Your task to perform on an android device: Open notification settings Image 0: 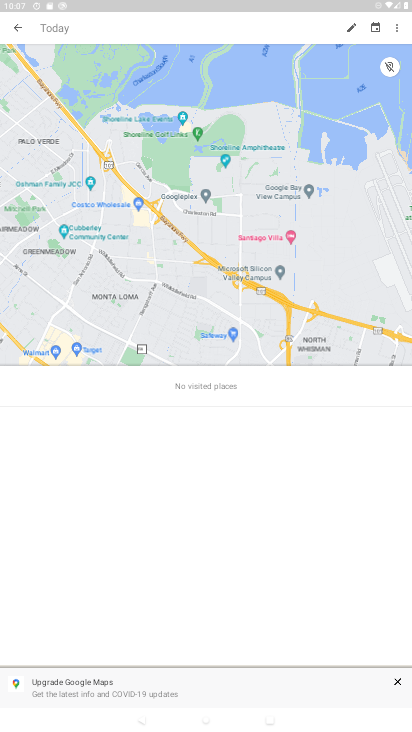
Step 0: press home button
Your task to perform on an android device: Open notification settings Image 1: 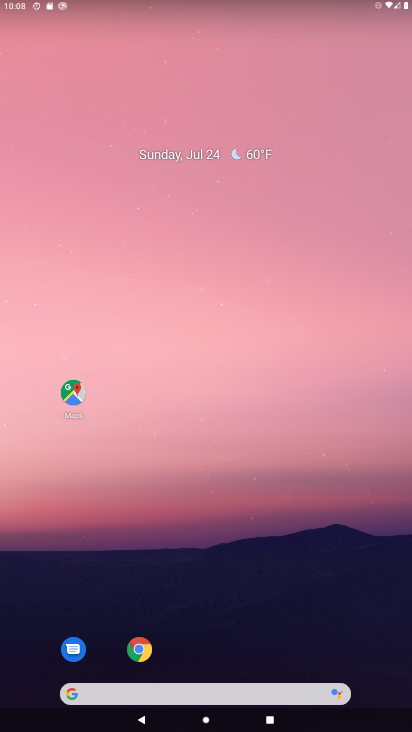
Step 1: drag from (183, 494) to (149, 143)
Your task to perform on an android device: Open notification settings Image 2: 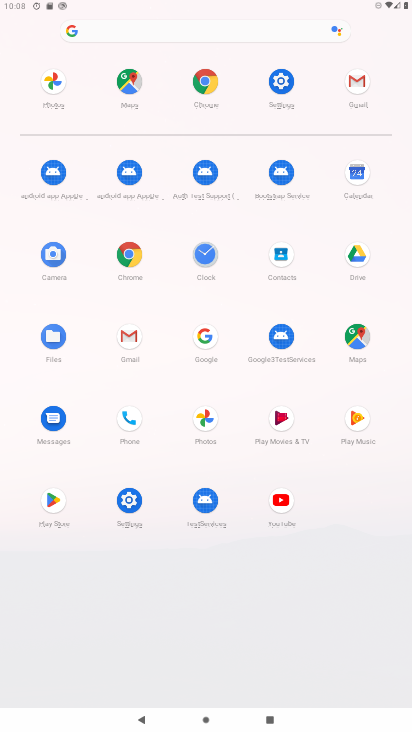
Step 2: click (283, 82)
Your task to perform on an android device: Open notification settings Image 3: 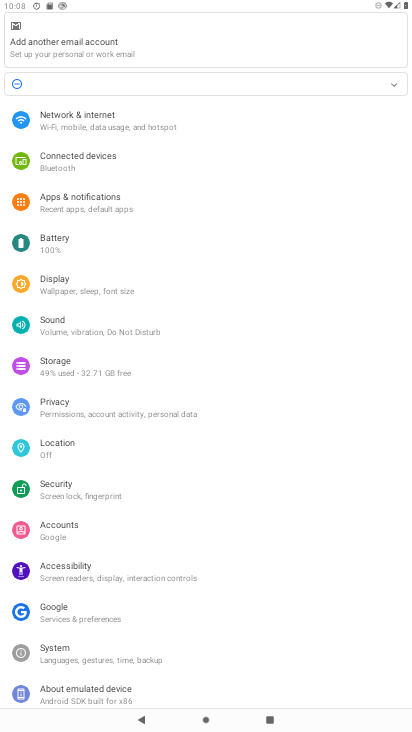
Step 3: click (122, 214)
Your task to perform on an android device: Open notification settings Image 4: 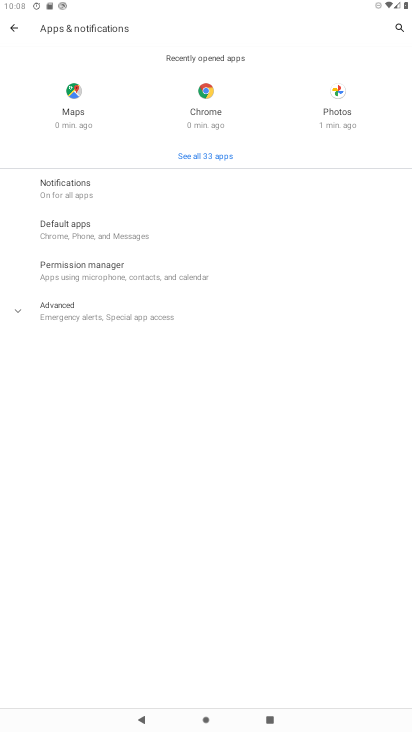
Step 4: click (46, 192)
Your task to perform on an android device: Open notification settings Image 5: 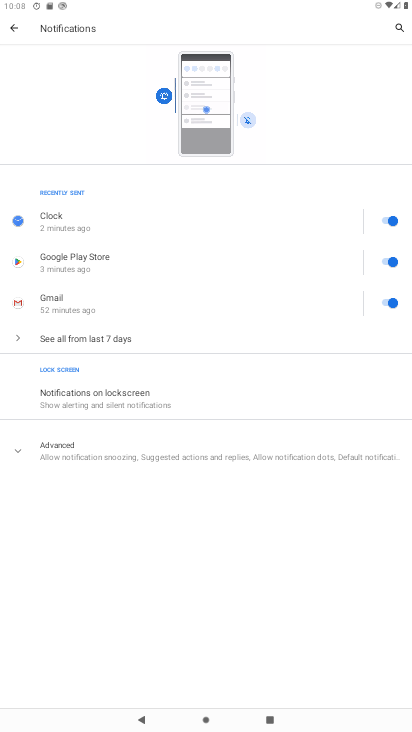
Step 5: click (123, 463)
Your task to perform on an android device: Open notification settings Image 6: 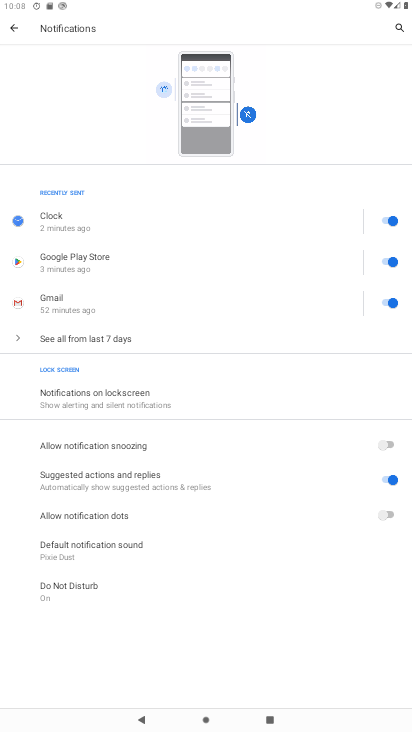
Step 6: task complete